Your task to perform on an android device: What is the recent news? Image 0: 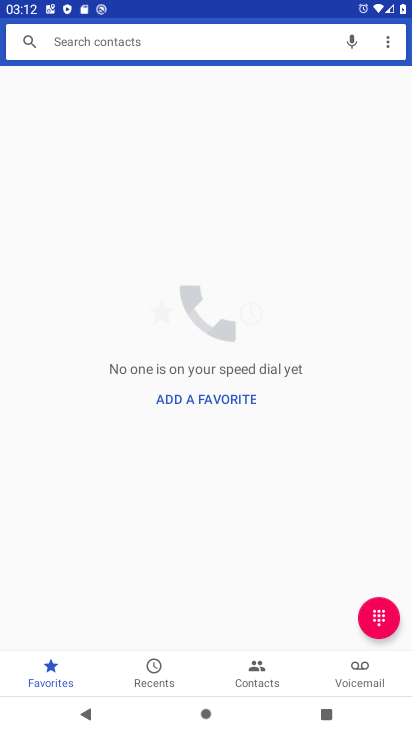
Step 0: press home button
Your task to perform on an android device: What is the recent news? Image 1: 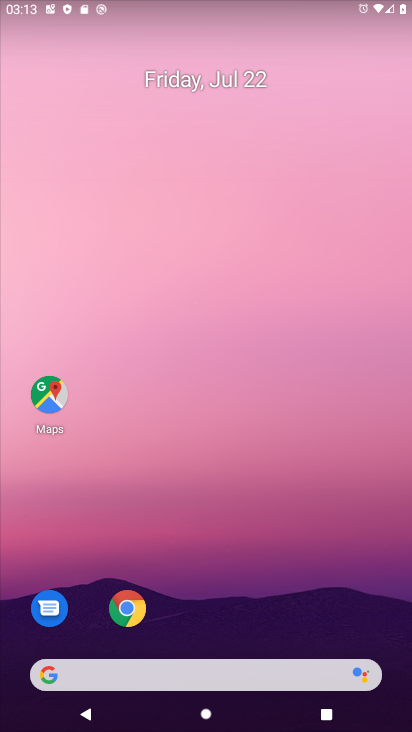
Step 1: task complete